Your task to perform on an android device: install app "Life360: Find Family & Friends" Image 0: 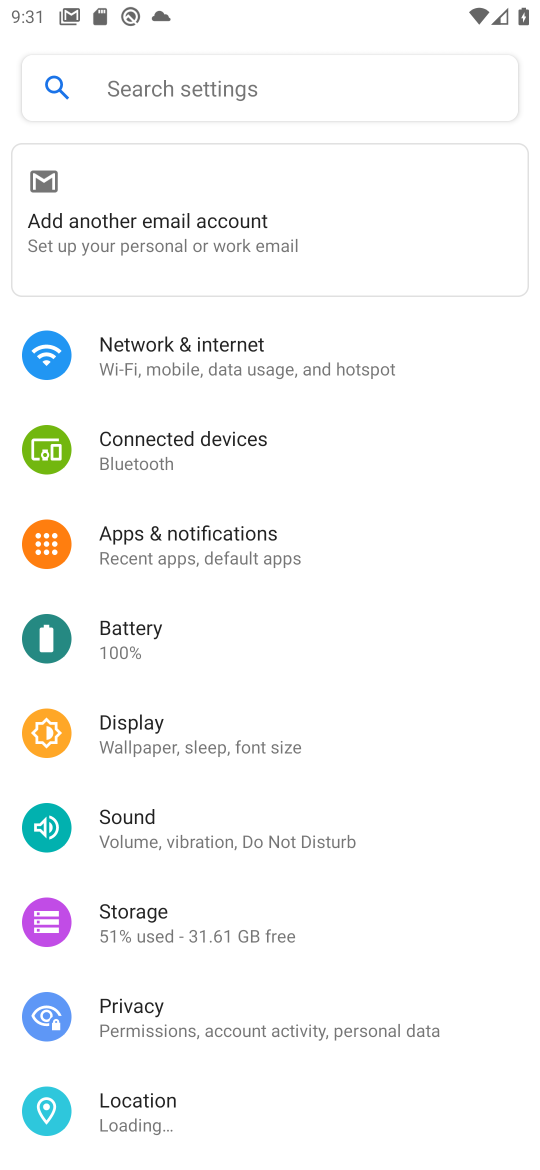
Step 0: press home button
Your task to perform on an android device: install app "Life360: Find Family & Friends" Image 1: 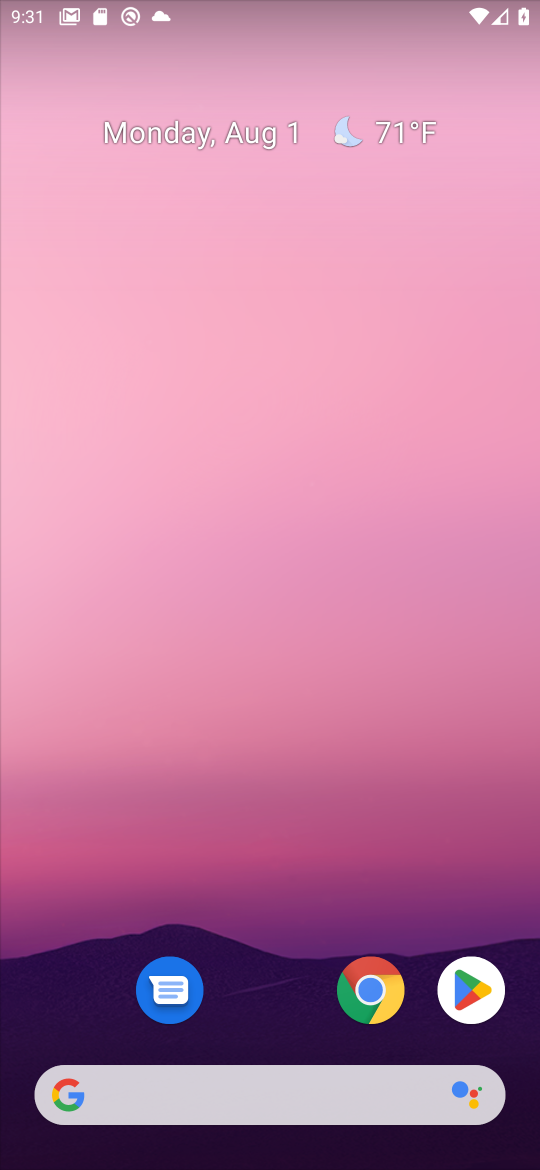
Step 1: click (470, 1041)
Your task to perform on an android device: install app "Life360: Find Family & Friends" Image 2: 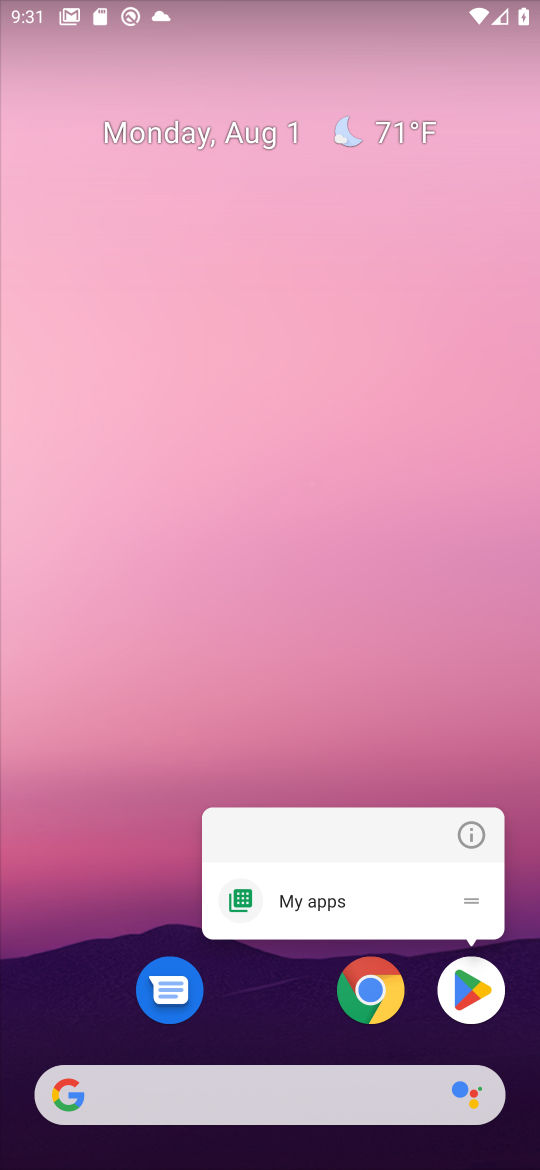
Step 2: click (466, 1005)
Your task to perform on an android device: install app "Life360: Find Family & Friends" Image 3: 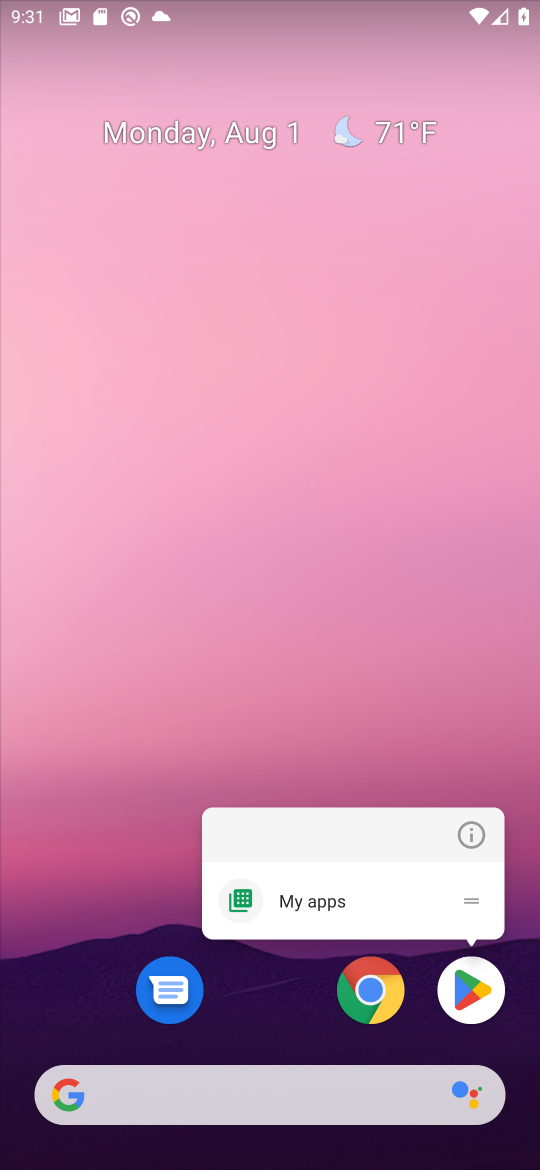
Step 3: click (469, 999)
Your task to perform on an android device: install app "Life360: Find Family & Friends" Image 4: 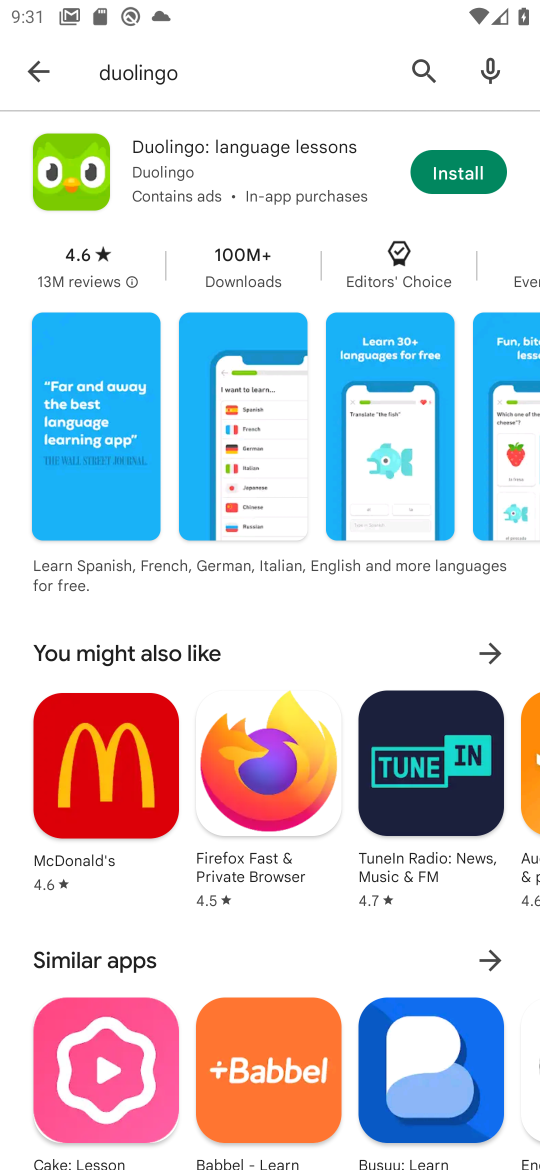
Step 4: click (429, 52)
Your task to perform on an android device: install app "Life360: Find Family & Friends" Image 5: 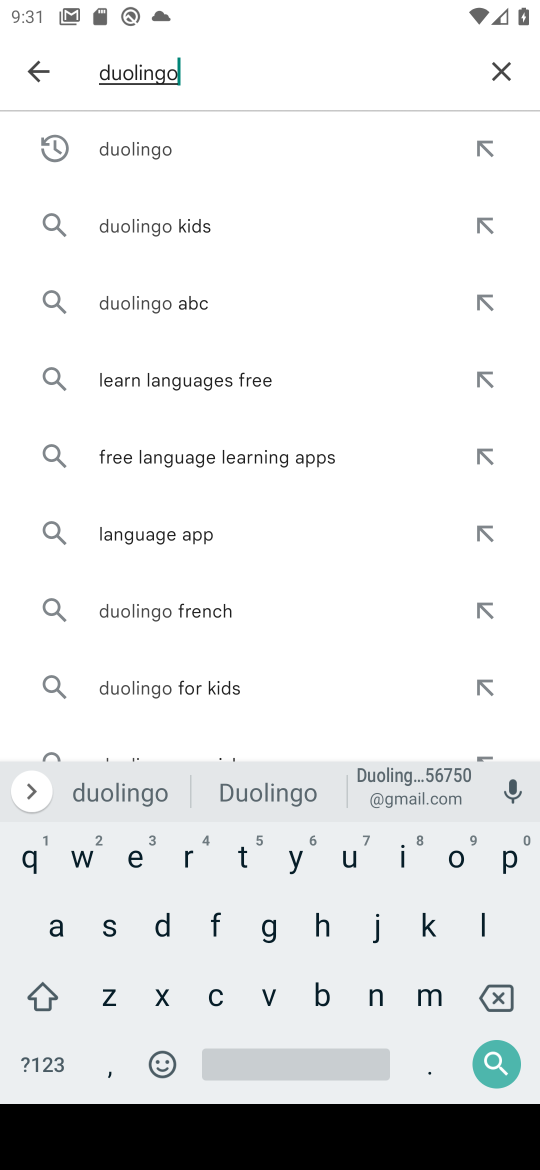
Step 5: click (509, 68)
Your task to perform on an android device: install app "Life360: Find Family & Friends" Image 6: 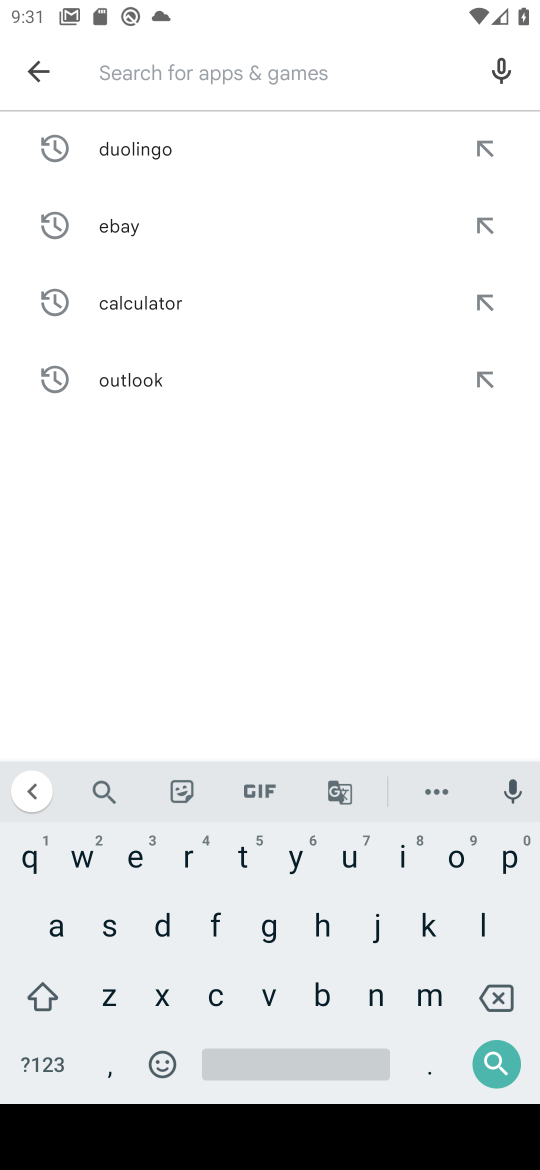
Step 6: click (488, 927)
Your task to perform on an android device: install app "Life360: Find Family & Friends" Image 7: 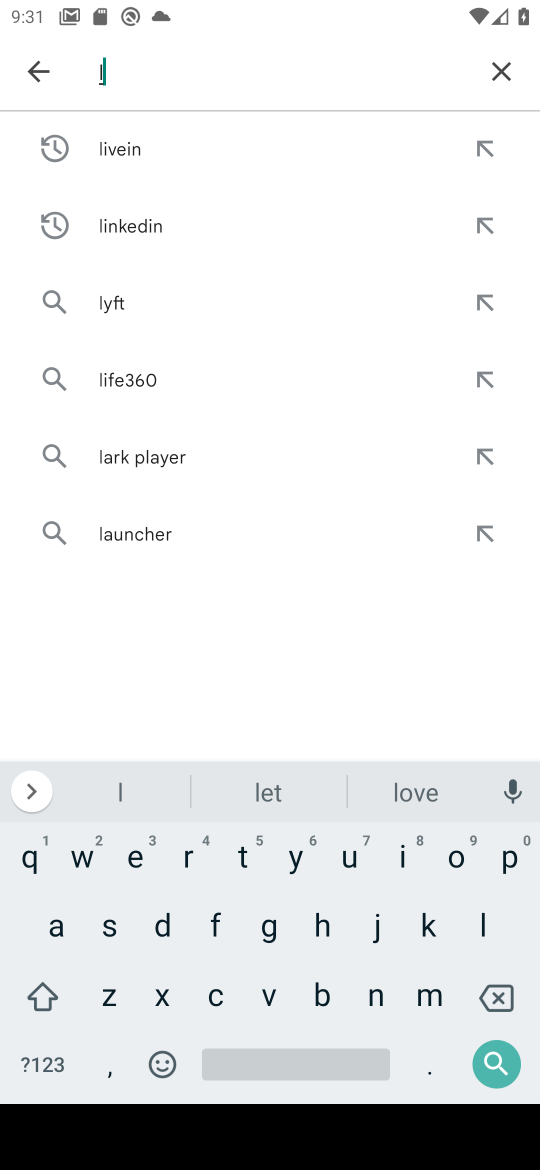
Step 7: click (171, 377)
Your task to perform on an android device: install app "Life360: Find Family & Friends" Image 8: 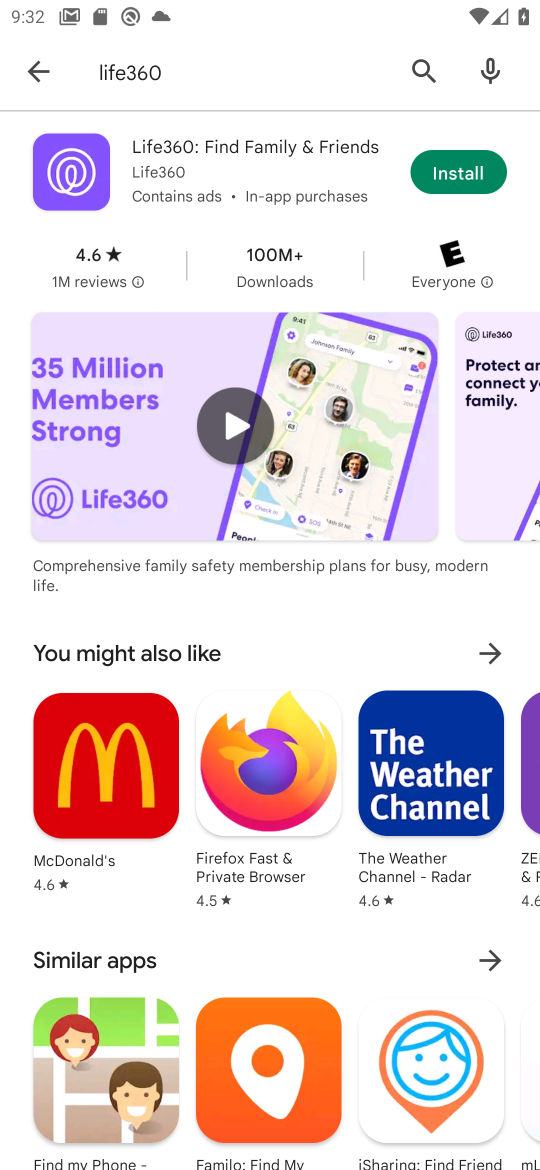
Step 8: click (463, 179)
Your task to perform on an android device: install app "Life360: Find Family & Friends" Image 9: 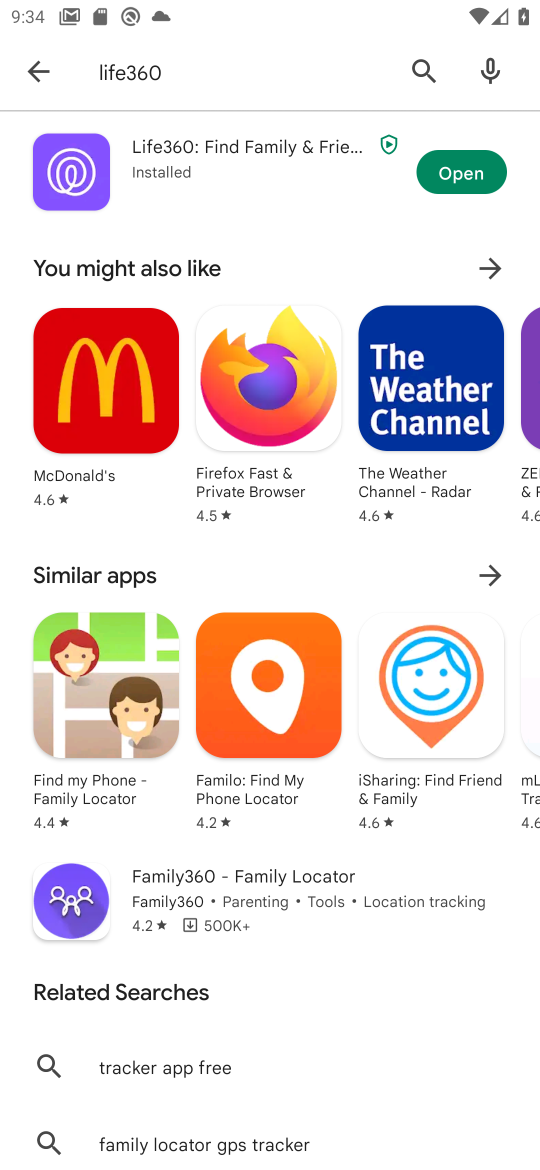
Step 9: task complete